Your task to perform on an android device: check google app version Image 0: 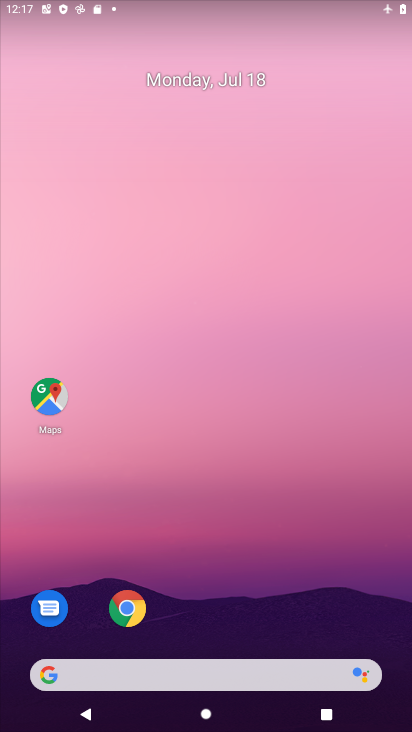
Step 0: drag from (394, 660) to (214, 11)
Your task to perform on an android device: check google app version Image 1: 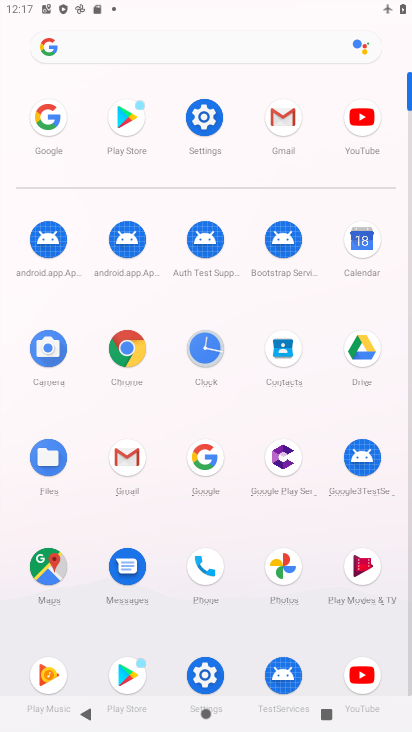
Step 1: click (213, 453)
Your task to perform on an android device: check google app version Image 2: 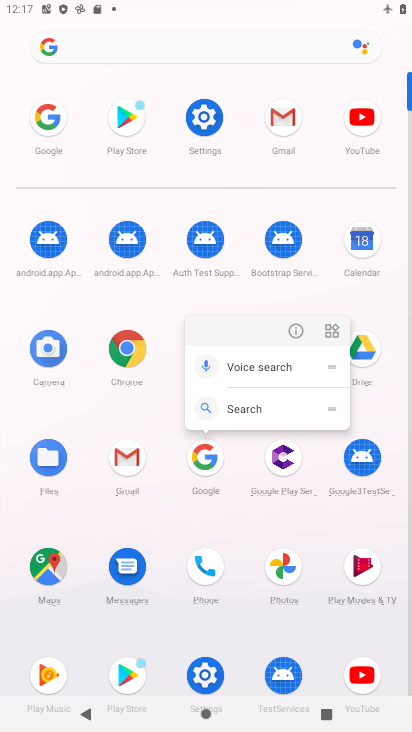
Step 2: click (301, 326)
Your task to perform on an android device: check google app version Image 3: 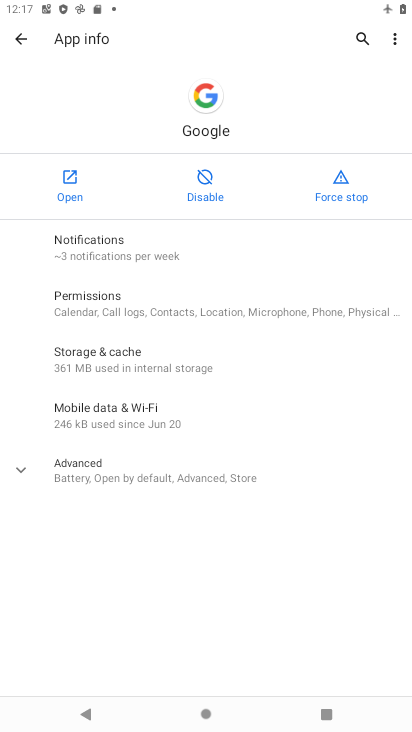
Step 3: click (90, 465)
Your task to perform on an android device: check google app version Image 4: 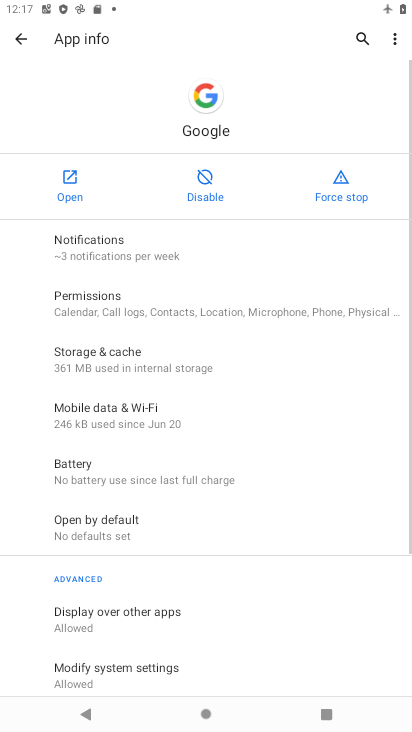
Step 4: task complete